Your task to perform on an android device: What's the weather today? Image 0: 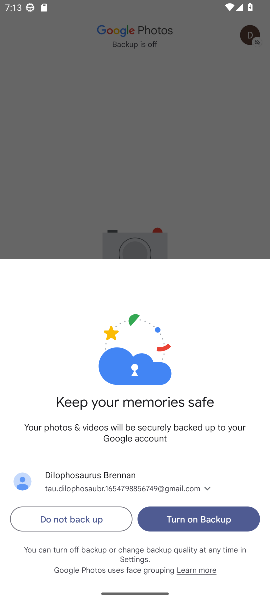
Step 0: press home button
Your task to perform on an android device: What's the weather today? Image 1: 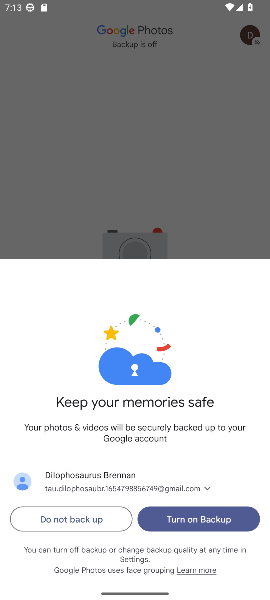
Step 1: press home button
Your task to perform on an android device: What's the weather today? Image 2: 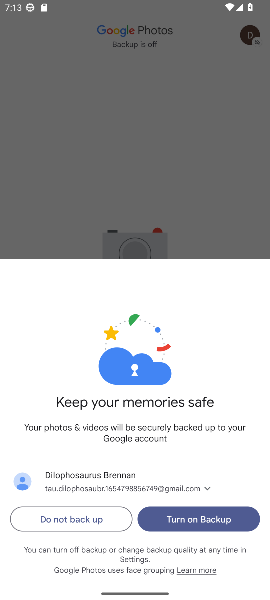
Step 2: press home button
Your task to perform on an android device: What's the weather today? Image 3: 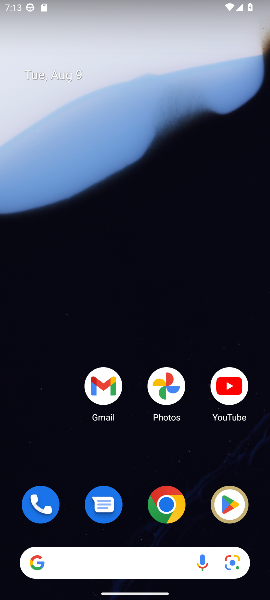
Step 3: click (175, 512)
Your task to perform on an android device: What's the weather today? Image 4: 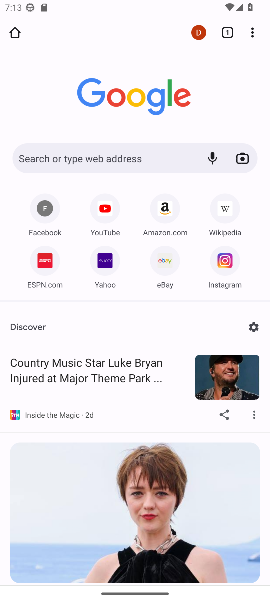
Step 4: click (162, 159)
Your task to perform on an android device: What's the weather today? Image 5: 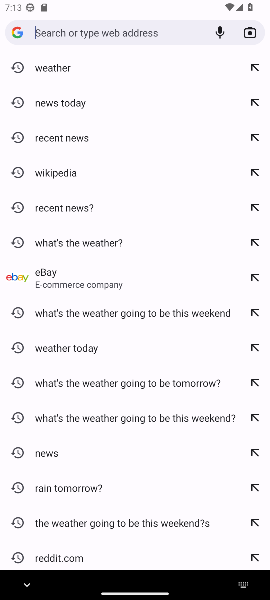
Step 5: type "What's the weather today?"
Your task to perform on an android device: What's the weather today? Image 6: 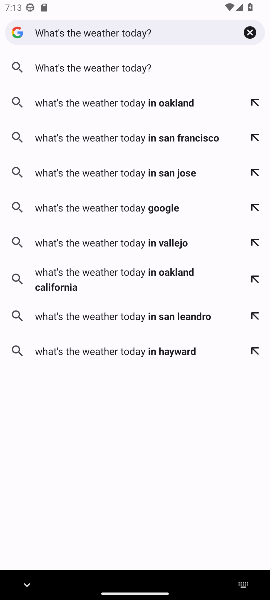
Step 6: click (89, 74)
Your task to perform on an android device: What's the weather today? Image 7: 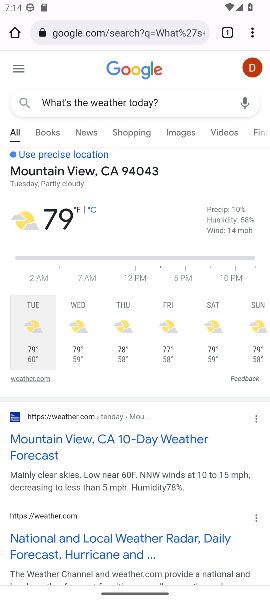
Step 7: task complete